Your task to perform on an android device: empty trash in the gmail app Image 0: 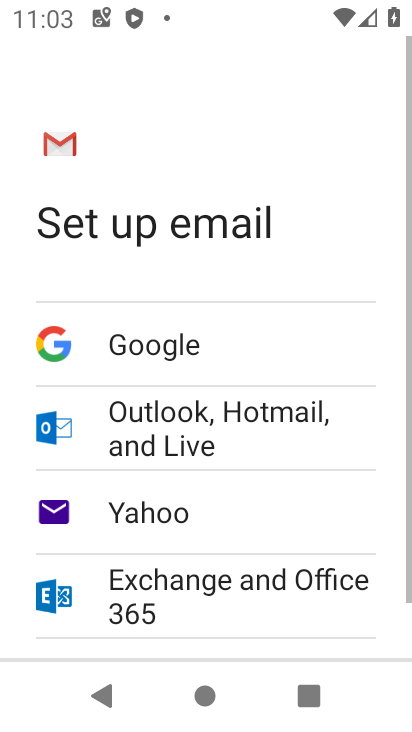
Step 0: press home button
Your task to perform on an android device: empty trash in the gmail app Image 1: 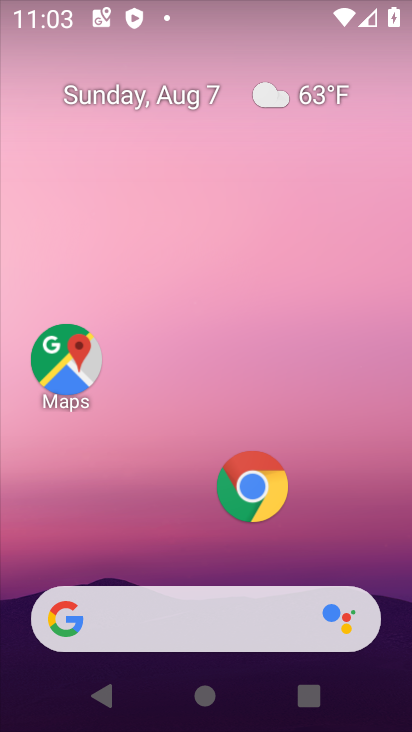
Step 1: drag from (155, 671) to (184, 268)
Your task to perform on an android device: empty trash in the gmail app Image 2: 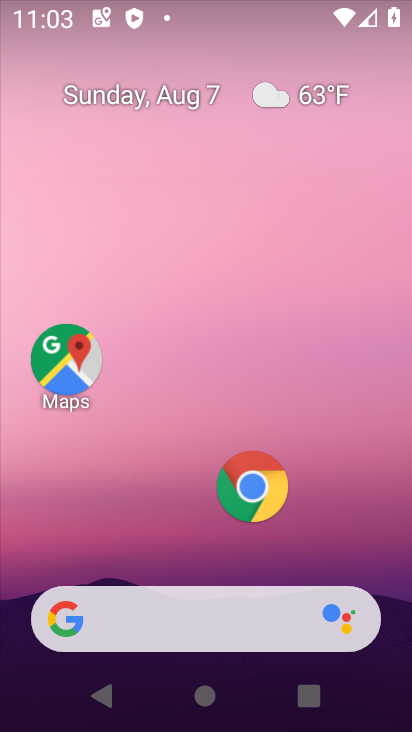
Step 2: drag from (169, 701) to (200, 243)
Your task to perform on an android device: empty trash in the gmail app Image 3: 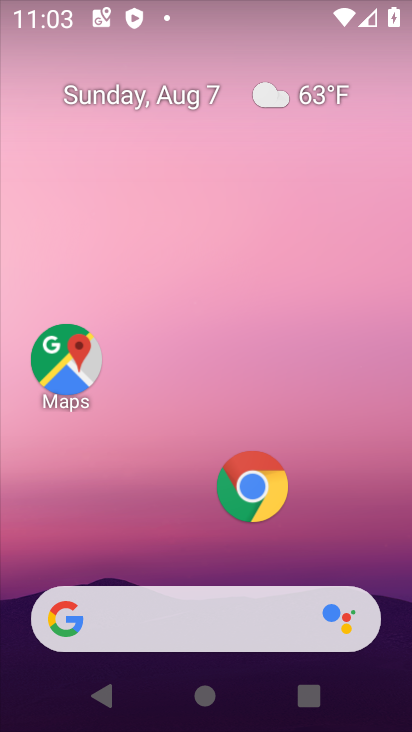
Step 3: drag from (205, 263) to (269, 46)
Your task to perform on an android device: empty trash in the gmail app Image 4: 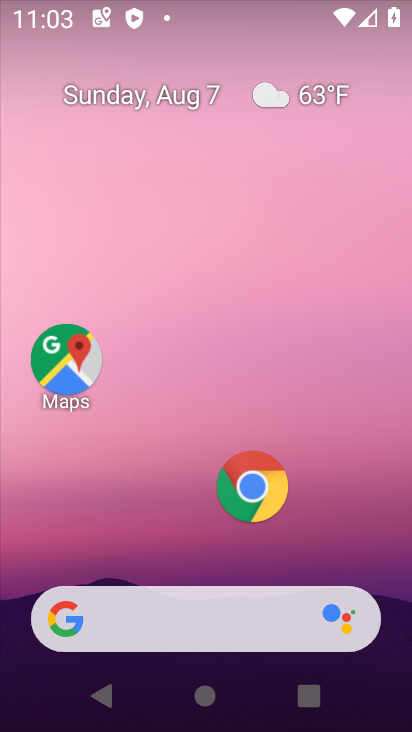
Step 4: drag from (159, 565) to (296, 4)
Your task to perform on an android device: empty trash in the gmail app Image 5: 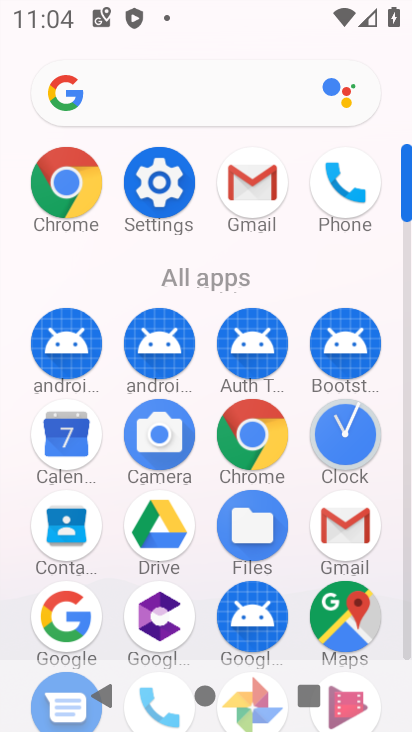
Step 5: click (256, 196)
Your task to perform on an android device: empty trash in the gmail app Image 6: 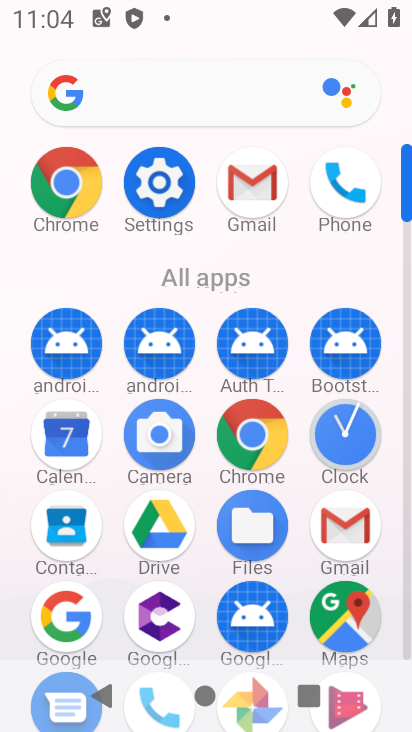
Step 6: click (256, 196)
Your task to perform on an android device: empty trash in the gmail app Image 7: 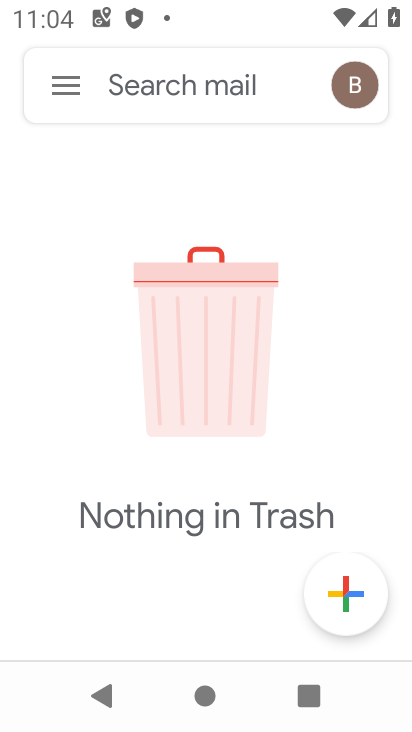
Step 7: click (68, 80)
Your task to perform on an android device: empty trash in the gmail app Image 8: 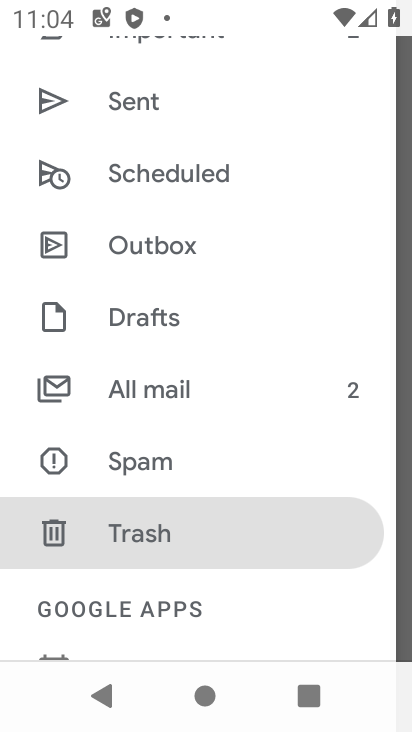
Step 8: click (202, 539)
Your task to perform on an android device: empty trash in the gmail app Image 9: 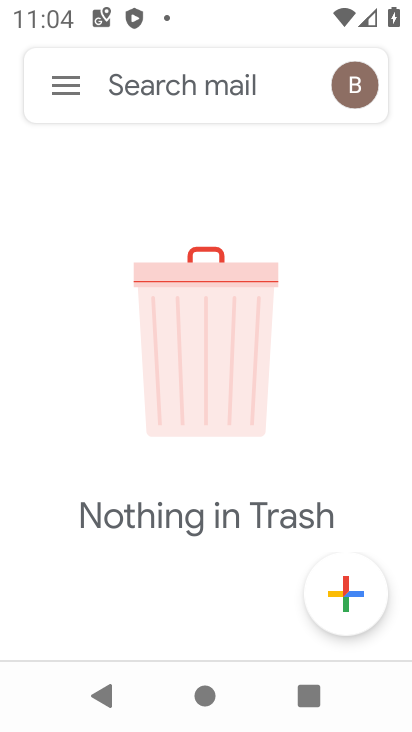
Step 9: task complete